Your task to perform on an android device: change alarm snooze length Image 0: 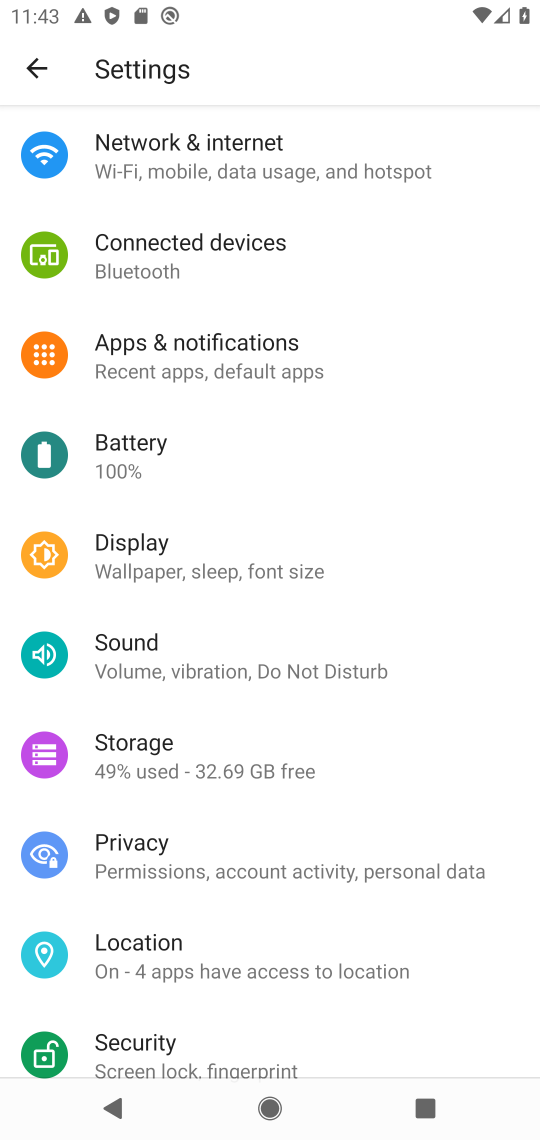
Step 0: press home button
Your task to perform on an android device: change alarm snooze length Image 1: 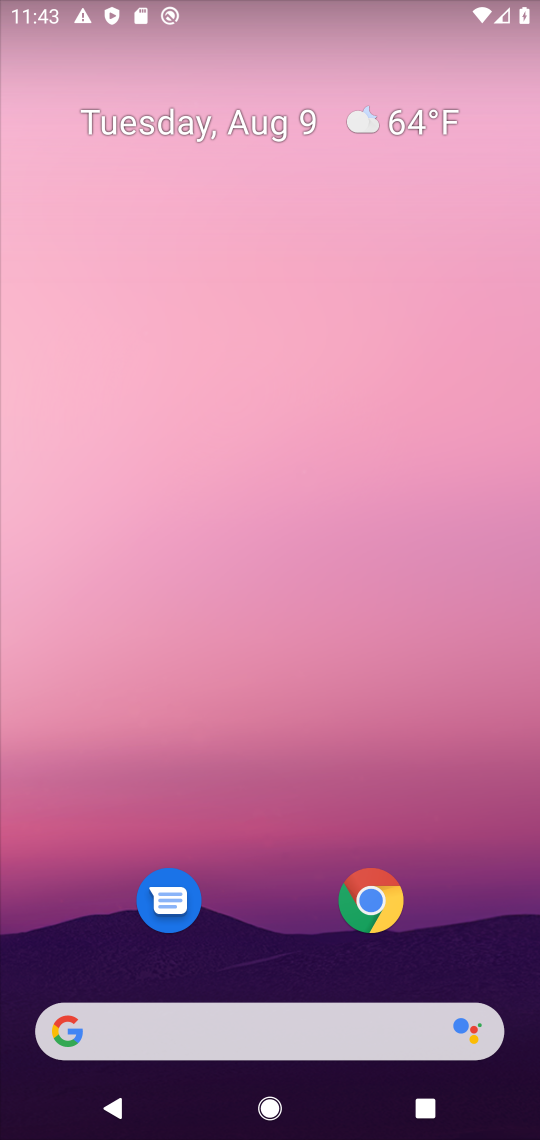
Step 1: drag from (278, 861) to (242, 31)
Your task to perform on an android device: change alarm snooze length Image 2: 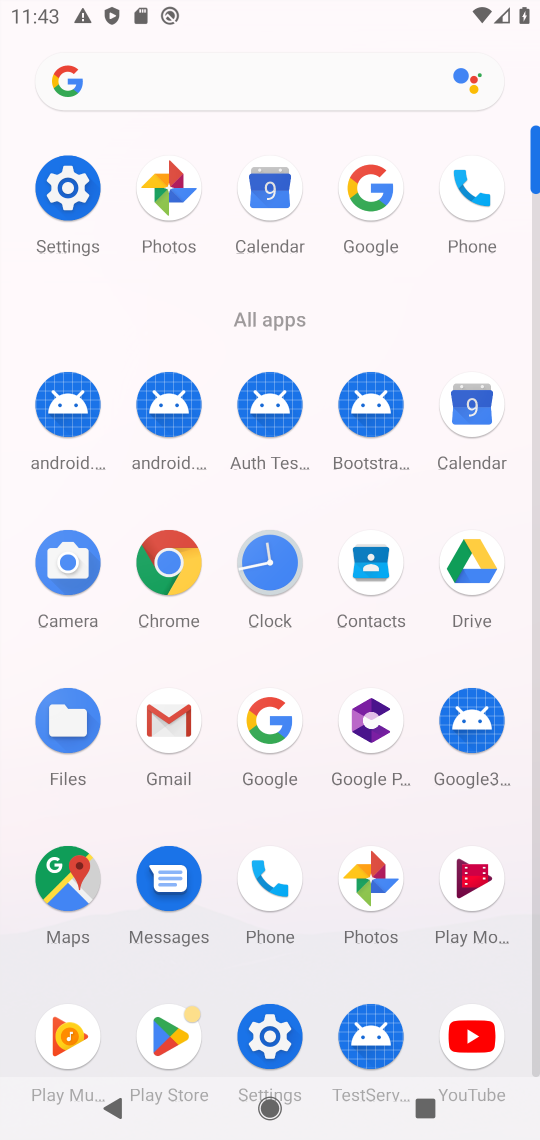
Step 2: click (290, 559)
Your task to perform on an android device: change alarm snooze length Image 3: 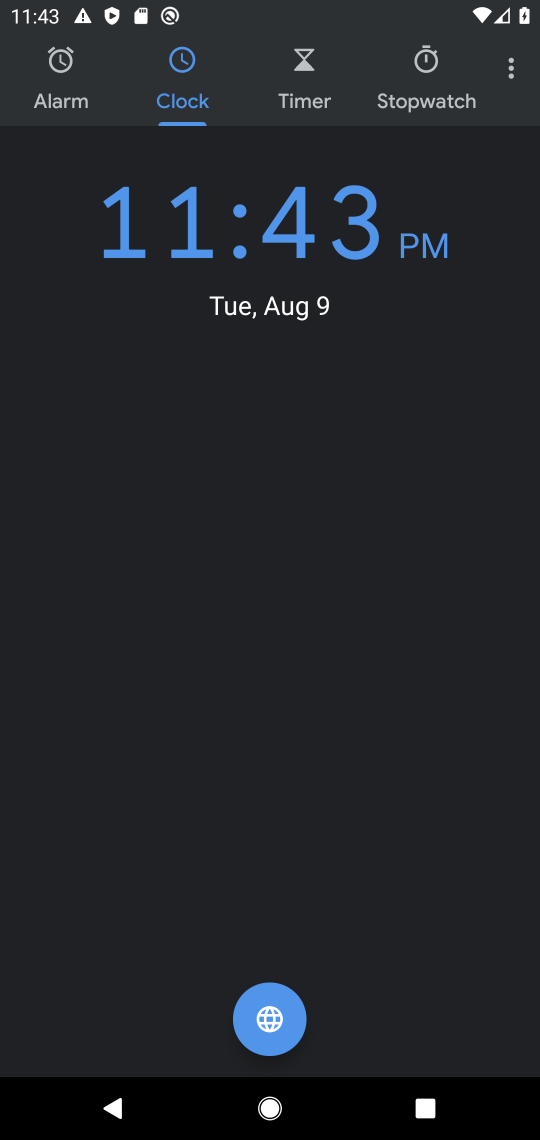
Step 3: click (514, 79)
Your task to perform on an android device: change alarm snooze length Image 4: 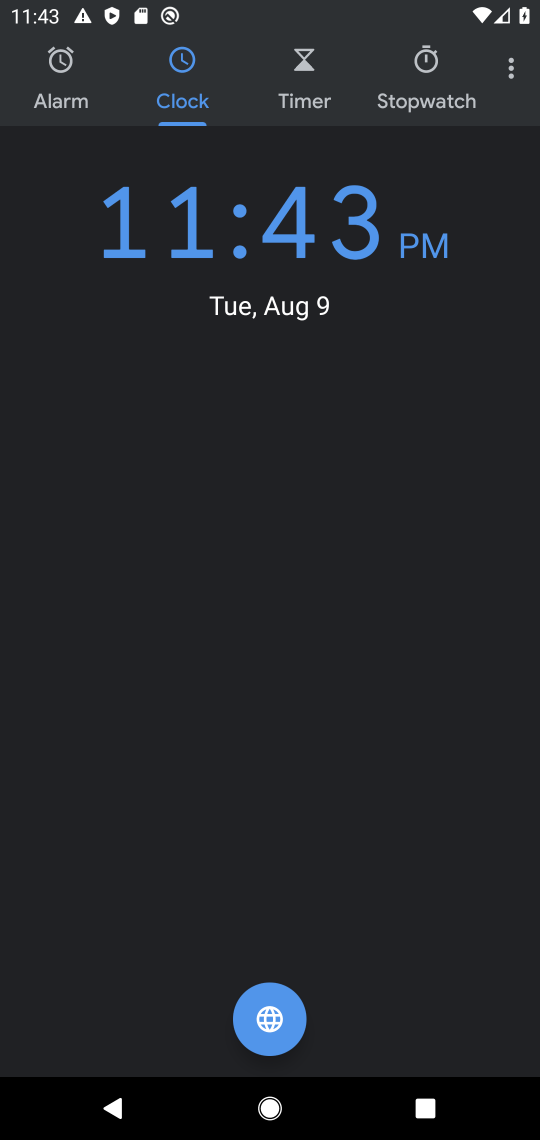
Step 4: click (514, 79)
Your task to perform on an android device: change alarm snooze length Image 5: 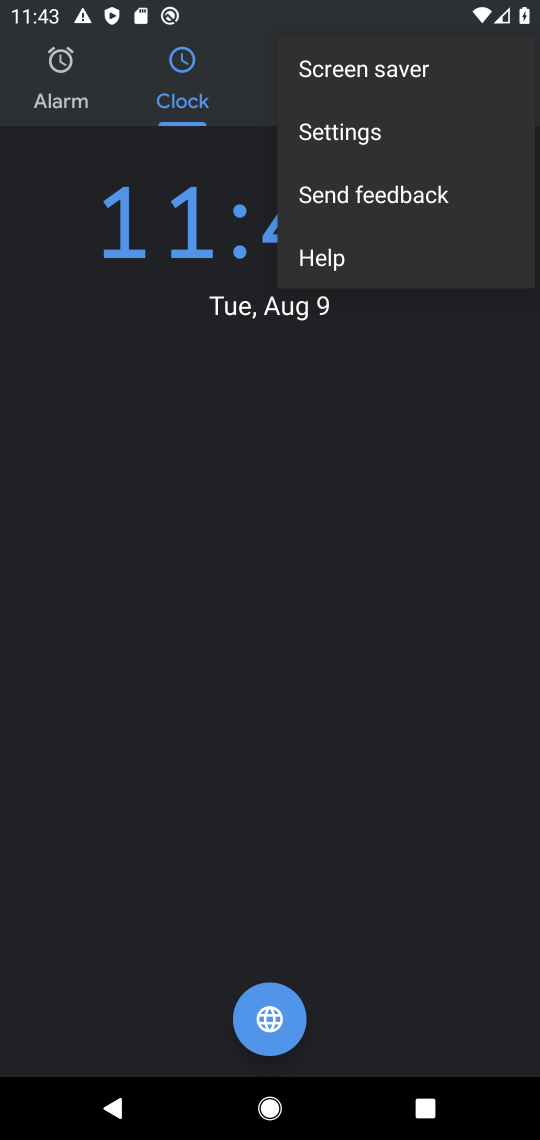
Step 5: click (395, 125)
Your task to perform on an android device: change alarm snooze length Image 6: 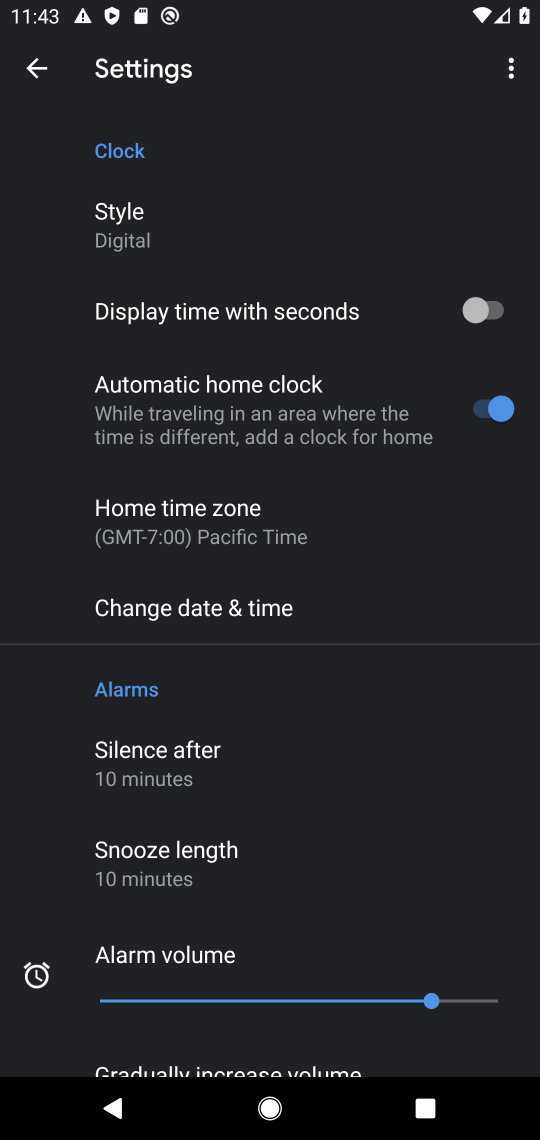
Step 6: click (215, 850)
Your task to perform on an android device: change alarm snooze length Image 7: 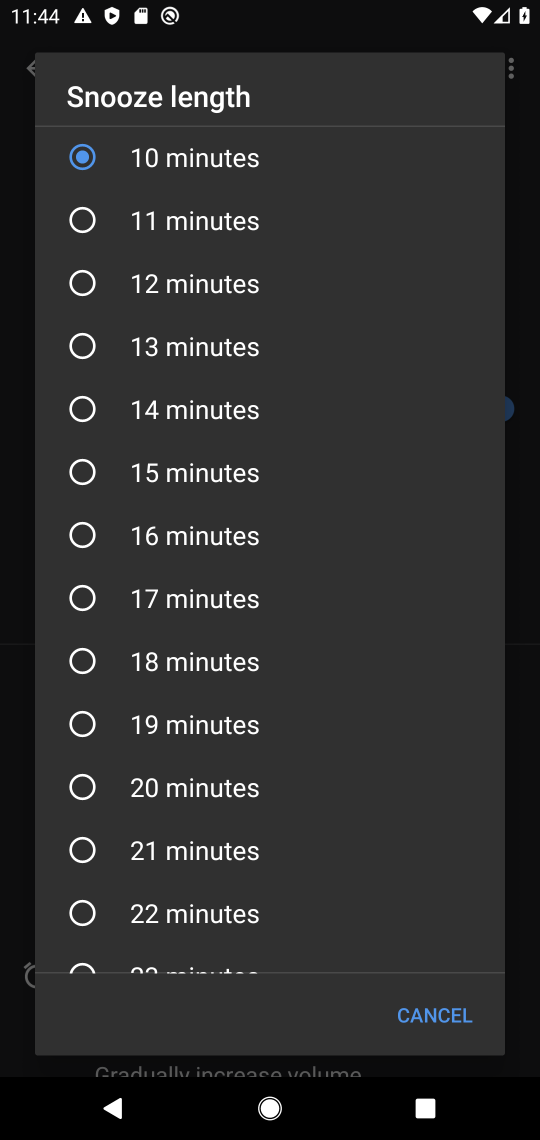
Step 7: click (94, 599)
Your task to perform on an android device: change alarm snooze length Image 8: 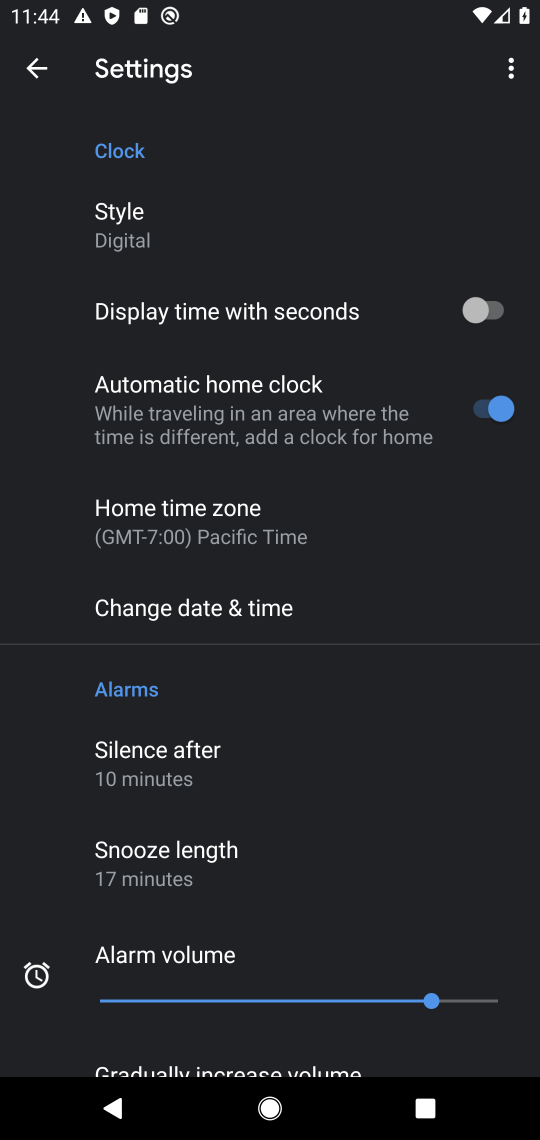
Step 8: task complete